Your task to perform on an android device: Show the shopping cart on newegg.com. Add "bose quietcomfort 35" to the cart on newegg.com Image 0: 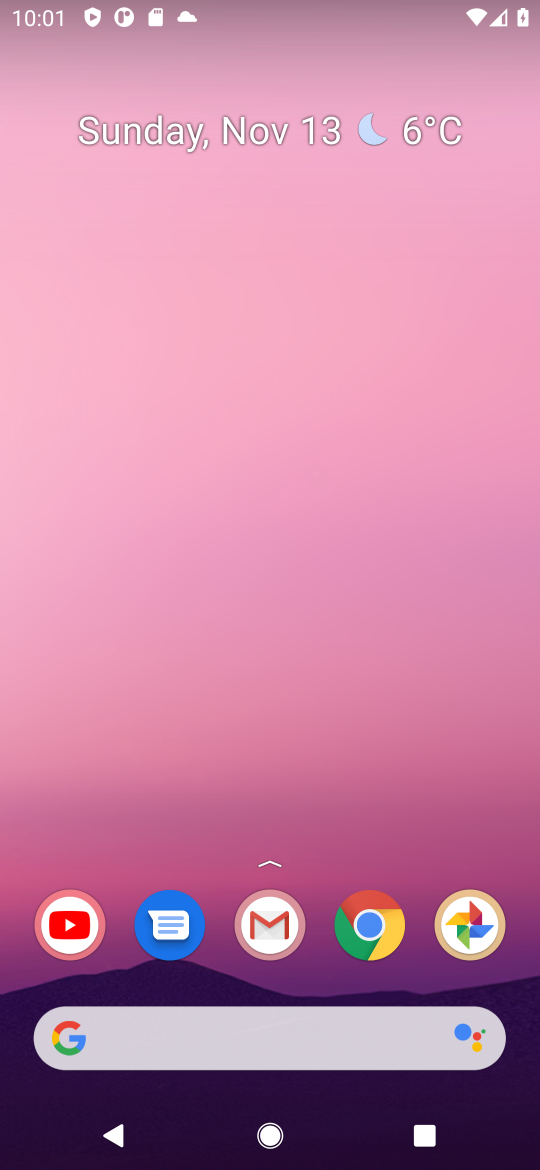
Step 0: click (383, 929)
Your task to perform on an android device: Show the shopping cart on newegg.com. Add "bose quietcomfort 35" to the cart on newegg.com Image 1: 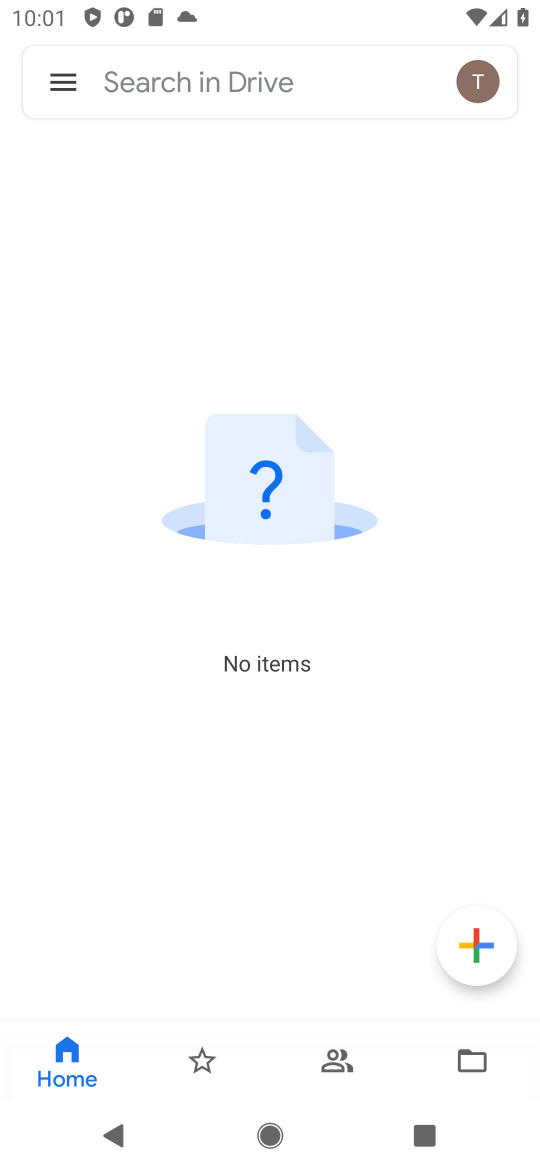
Step 1: press home button
Your task to perform on an android device: Show the shopping cart on newegg.com. Add "bose quietcomfort 35" to the cart on newegg.com Image 2: 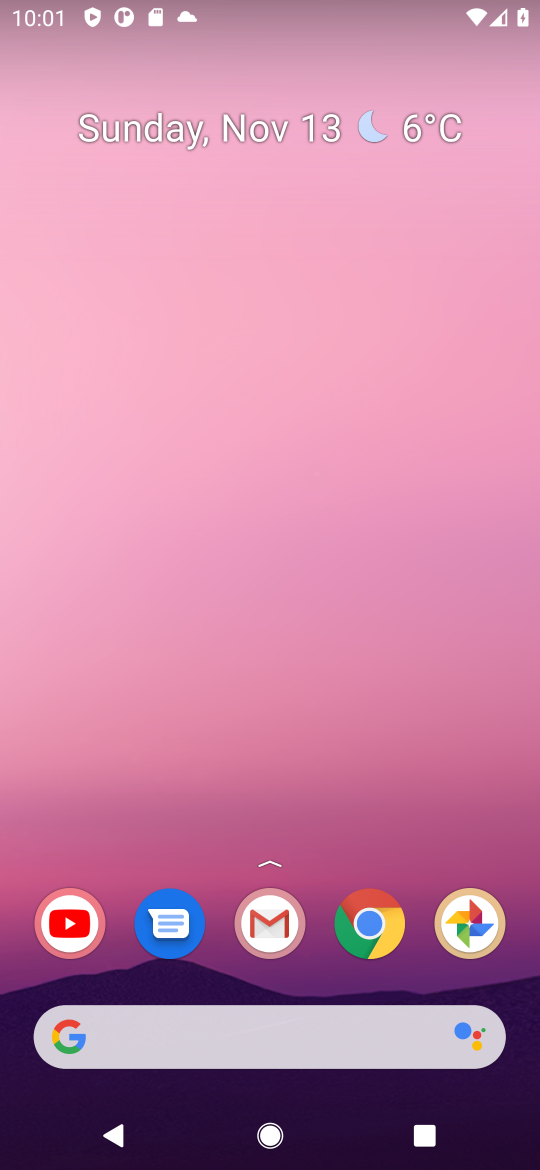
Step 2: click (361, 916)
Your task to perform on an android device: Show the shopping cart on newegg.com. Add "bose quietcomfort 35" to the cart on newegg.com Image 3: 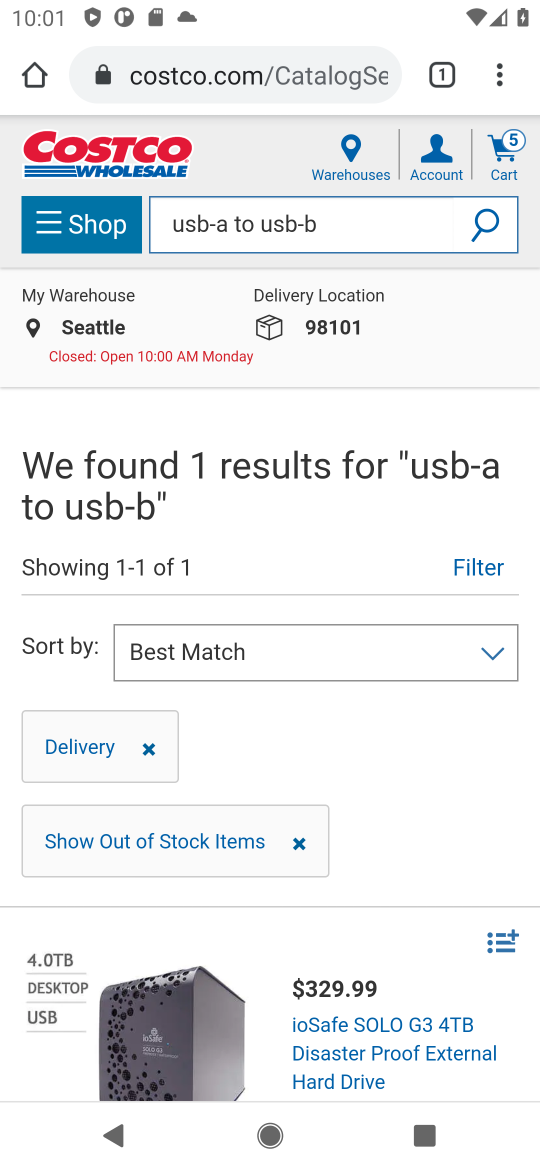
Step 3: click (299, 80)
Your task to perform on an android device: Show the shopping cart on newegg.com. Add "bose quietcomfort 35" to the cart on newegg.com Image 4: 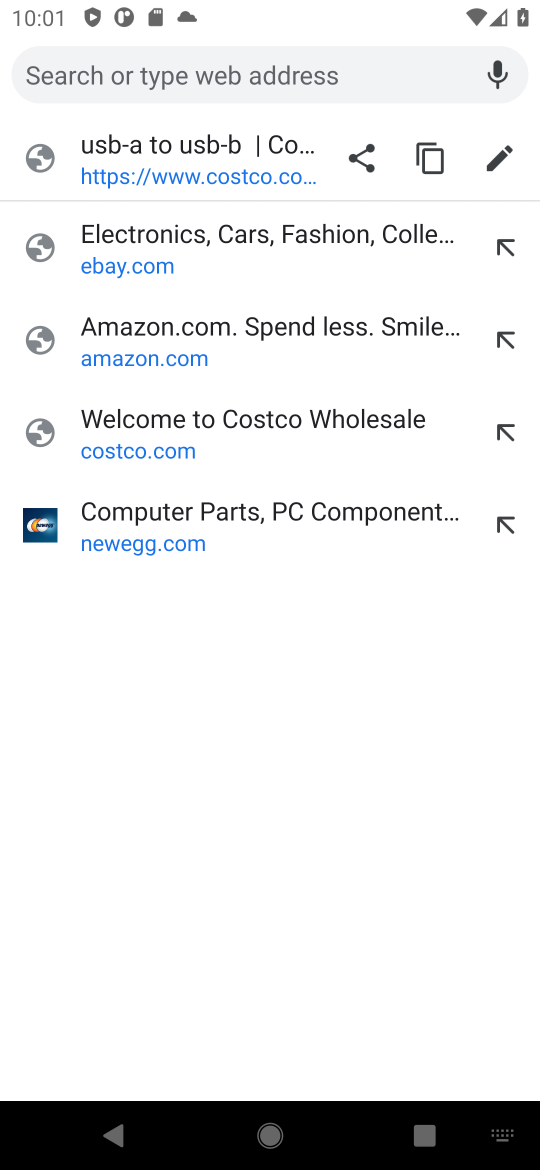
Step 4: click (238, 514)
Your task to perform on an android device: Show the shopping cart on newegg.com. Add "bose quietcomfort 35" to the cart on newegg.com Image 5: 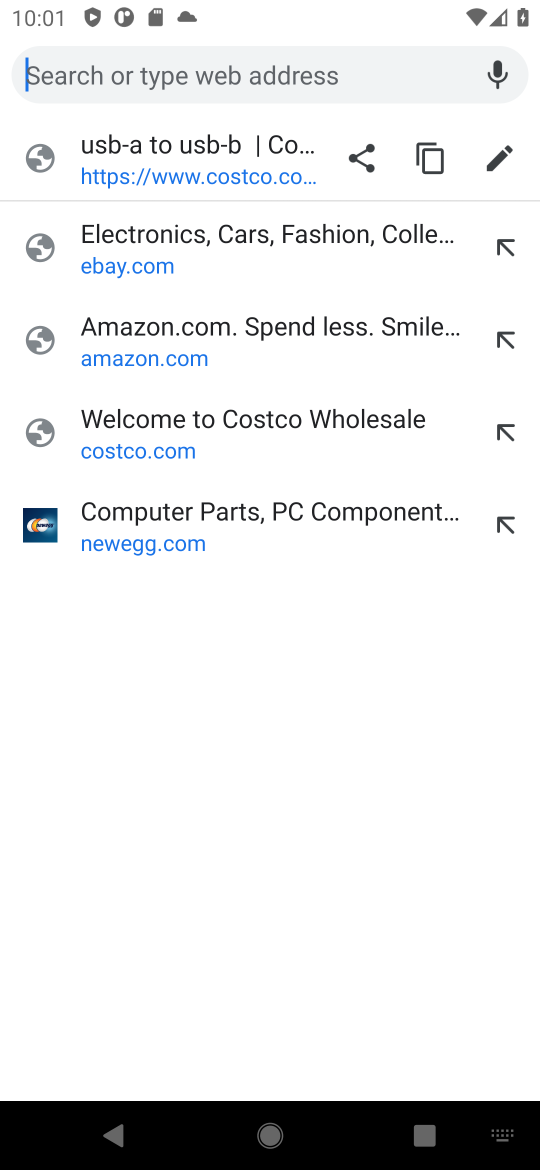
Step 5: click (240, 521)
Your task to perform on an android device: Show the shopping cart on newegg.com. Add "bose quietcomfort 35" to the cart on newegg.com Image 6: 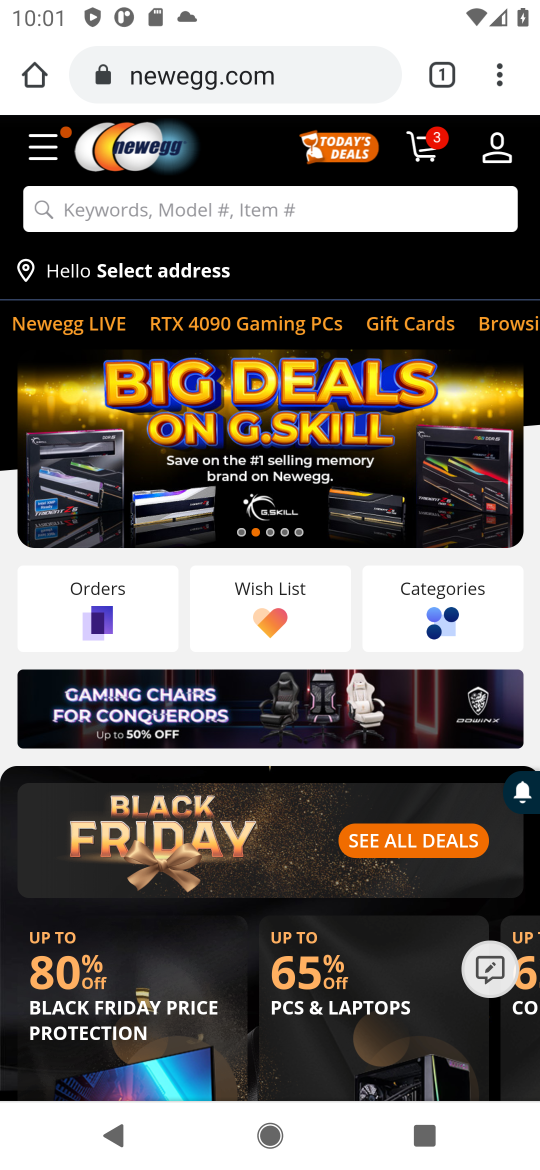
Step 6: click (313, 199)
Your task to perform on an android device: Show the shopping cart on newegg.com. Add "bose quietcomfort 35" to the cart on newegg.com Image 7: 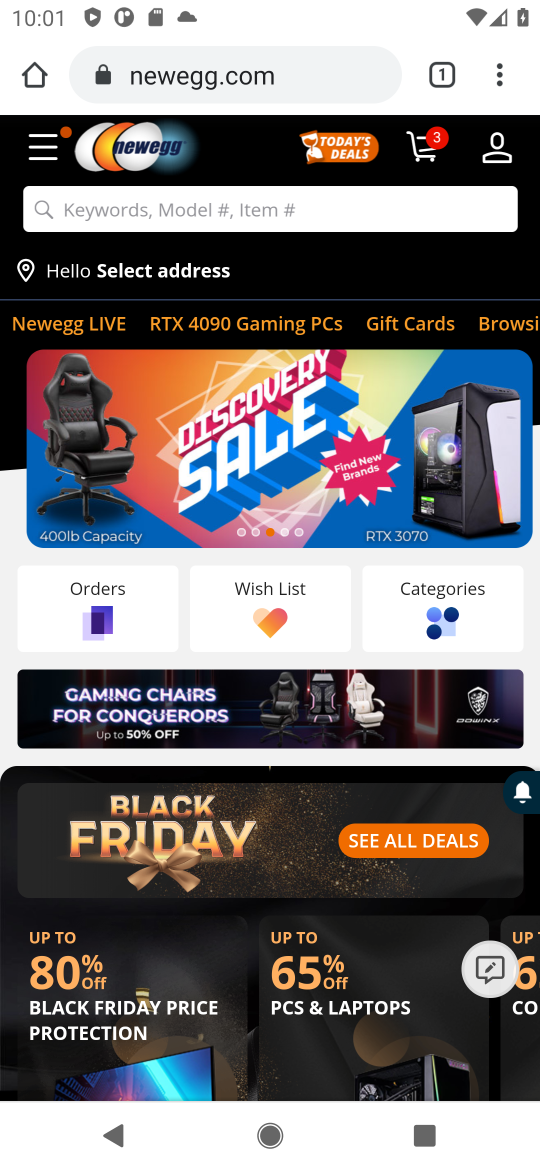
Step 7: press enter
Your task to perform on an android device: Show the shopping cart on newegg.com. Add "bose quietcomfort 35" to the cart on newegg.com Image 8: 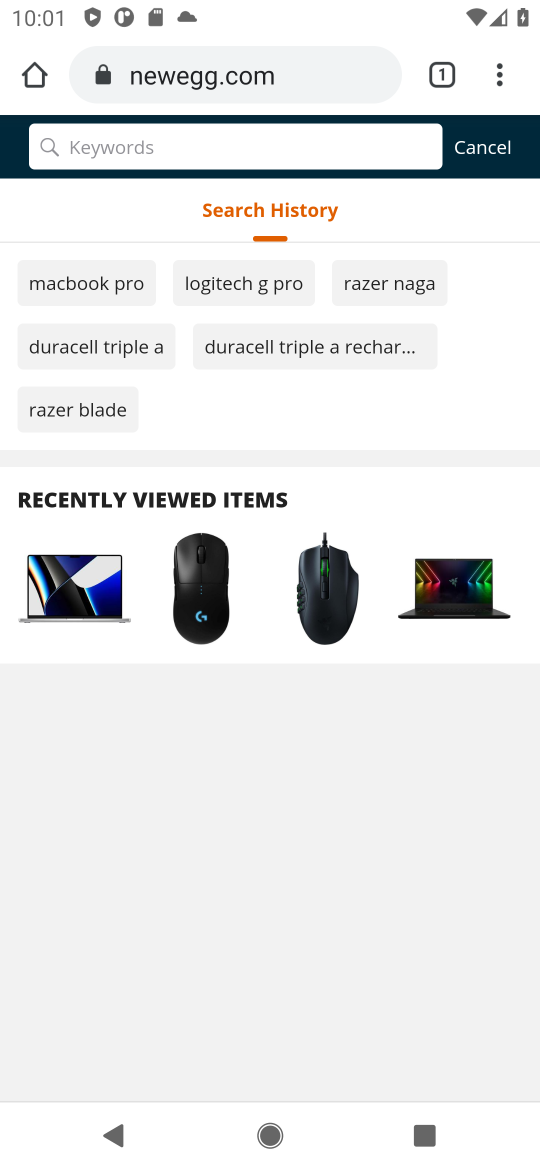
Step 8: type "bose quietcomfort 35"
Your task to perform on an android device: Show the shopping cart on newegg.com. Add "bose quietcomfort 35" to the cart on newegg.com Image 9: 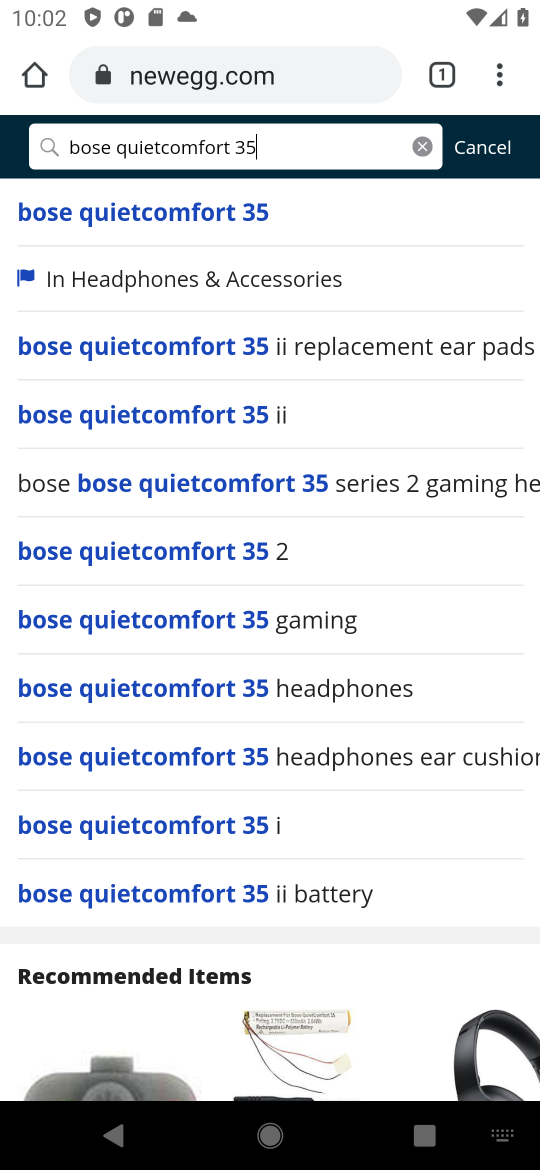
Step 9: click (220, 207)
Your task to perform on an android device: Show the shopping cart on newegg.com. Add "bose quietcomfort 35" to the cart on newegg.com Image 10: 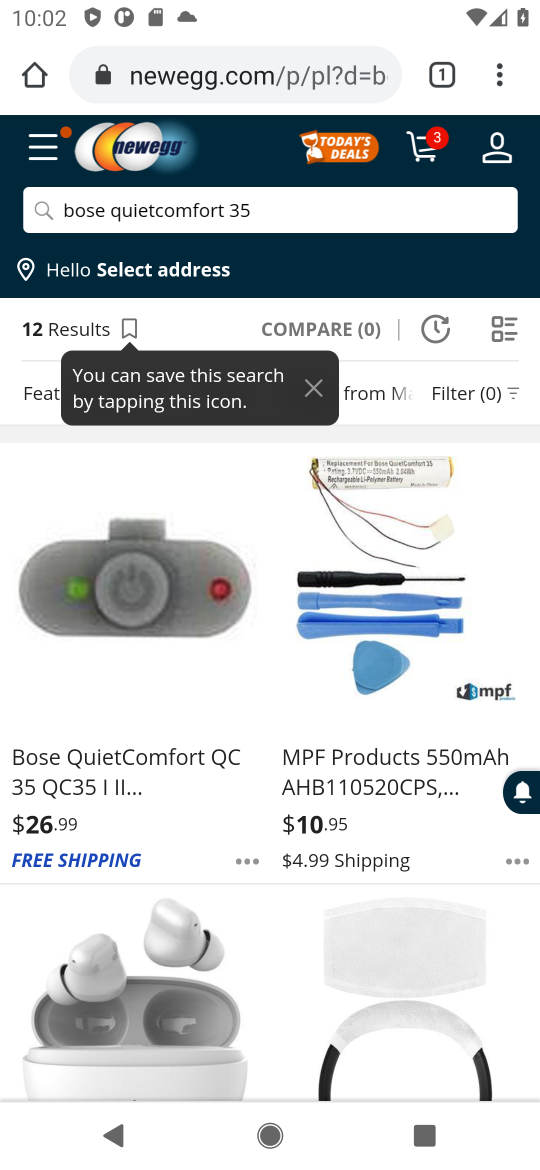
Step 10: drag from (232, 769) to (270, 315)
Your task to perform on an android device: Show the shopping cart on newegg.com. Add "bose quietcomfort 35" to the cart on newegg.com Image 11: 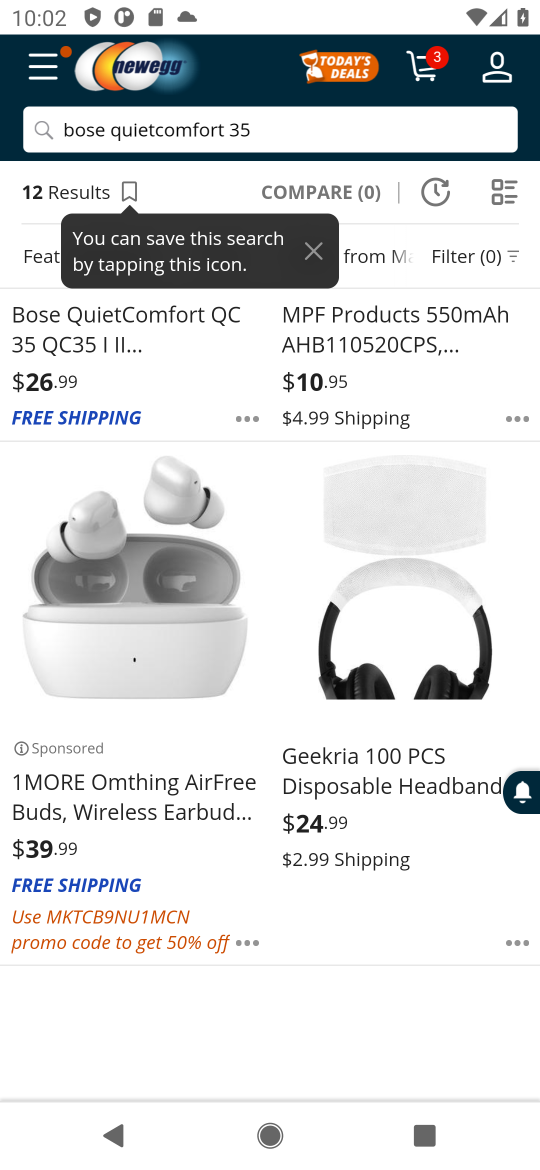
Step 11: drag from (410, 924) to (394, 452)
Your task to perform on an android device: Show the shopping cart on newegg.com. Add "bose quietcomfort 35" to the cart on newegg.com Image 12: 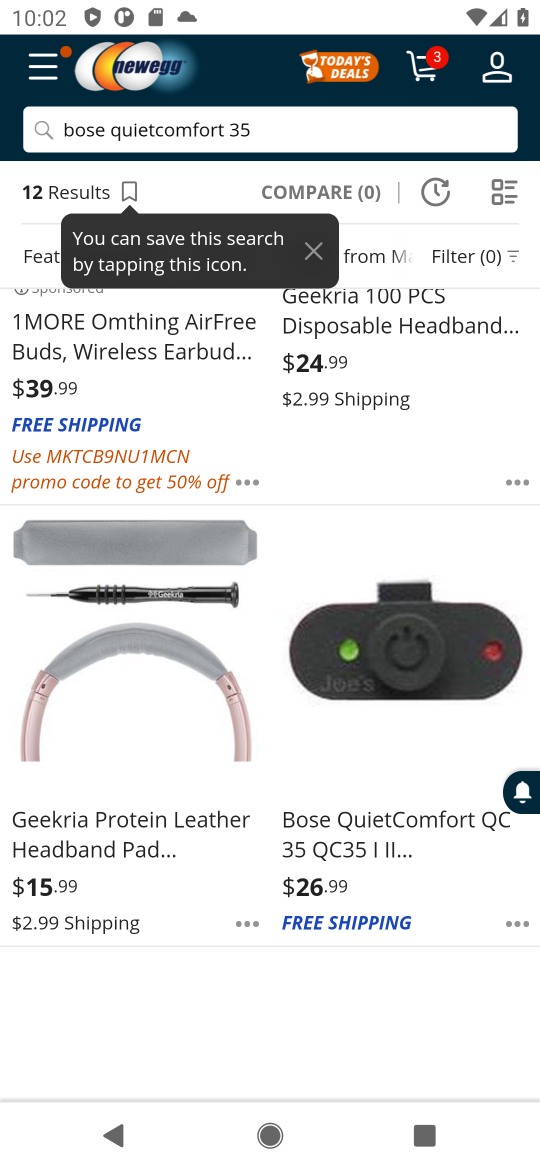
Step 12: drag from (393, 936) to (429, 447)
Your task to perform on an android device: Show the shopping cart on newegg.com. Add "bose quietcomfort 35" to the cart on newegg.com Image 13: 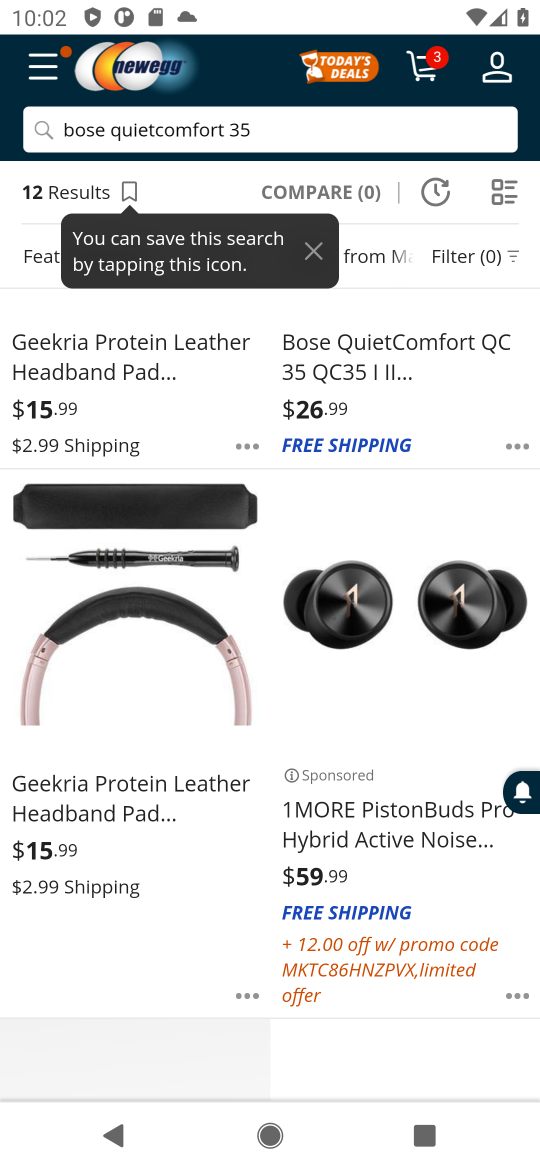
Step 13: drag from (432, 891) to (439, 434)
Your task to perform on an android device: Show the shopping cart on newegg.com. Add "bose quietcomfort 35" to the cart on newegg.com Image 14: 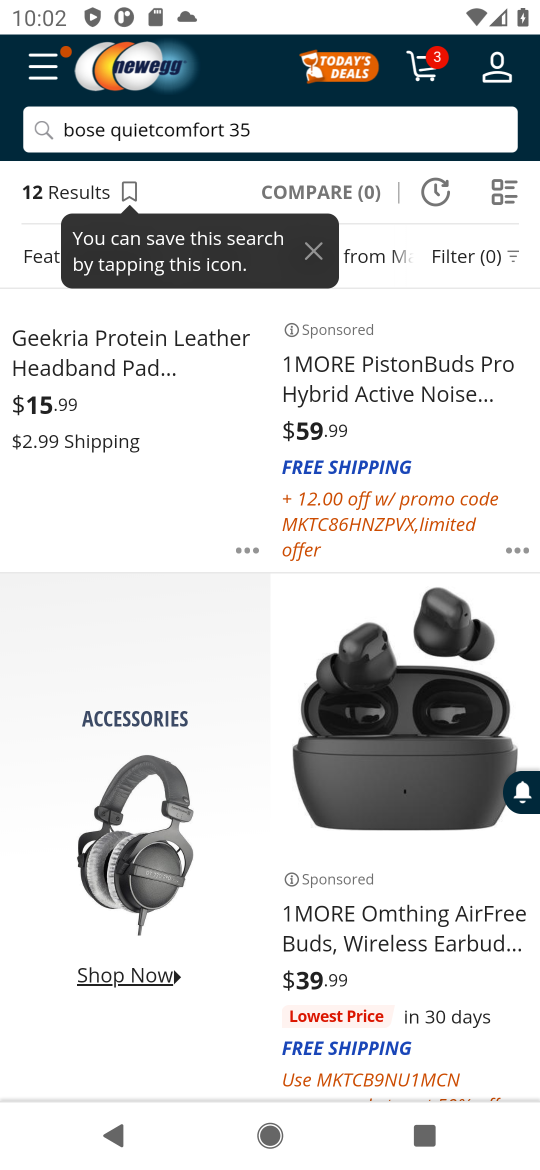
Step 14: drag from (307, 302) to (455, 1037)
Your task to perform on an android device: Show the shopping cart on newegg.com. Add "bose quietcomfort 35" to the cart on newegg.com Image 15: 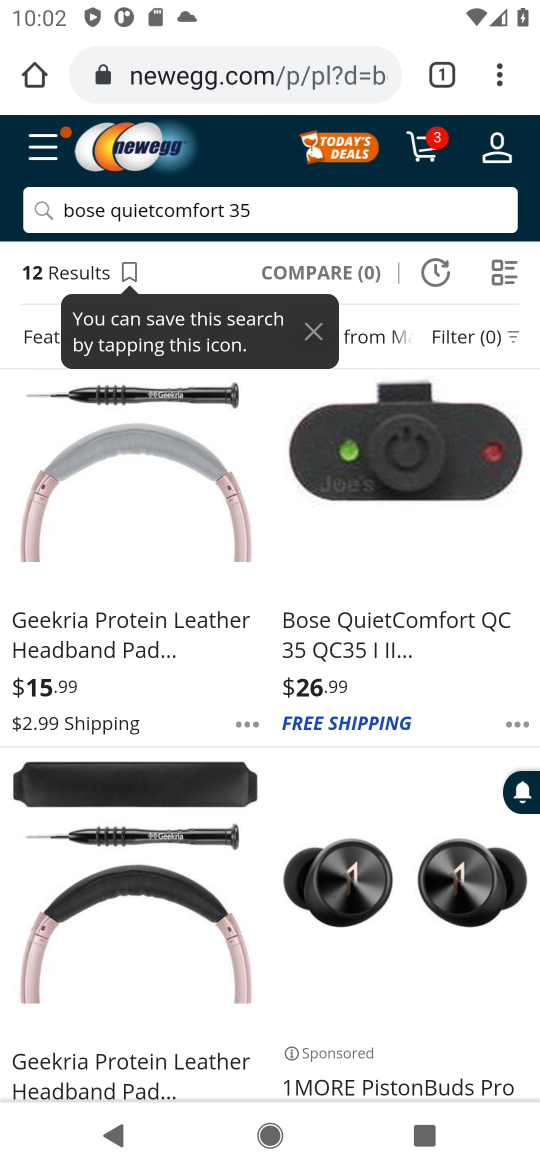
Step 15: drag from (173, 552) to (425, 1169)
Your task to perform on an android device: Show the shopping cart on newegg.com. Add "bose quietcomfort 35" to the cart on newegg.com Image 16: 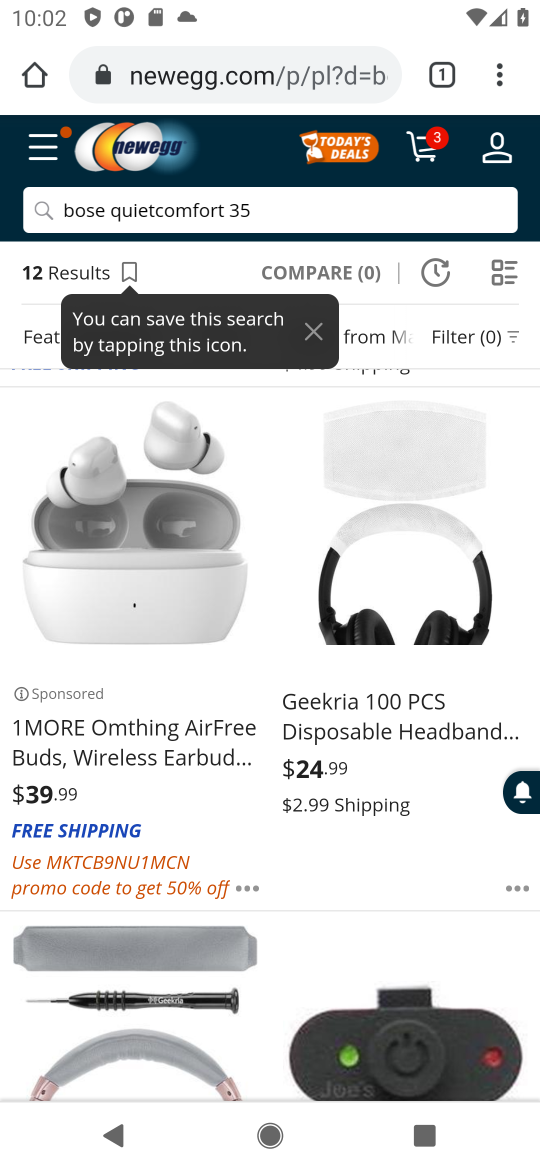
Step 16: drag from (342, 809) to (417, 1059)
Your task to perform on an android device: Show the shopping cart on newegg.com. Add "bose quietcomfort 35" to the cart on newegg.com Image 17: 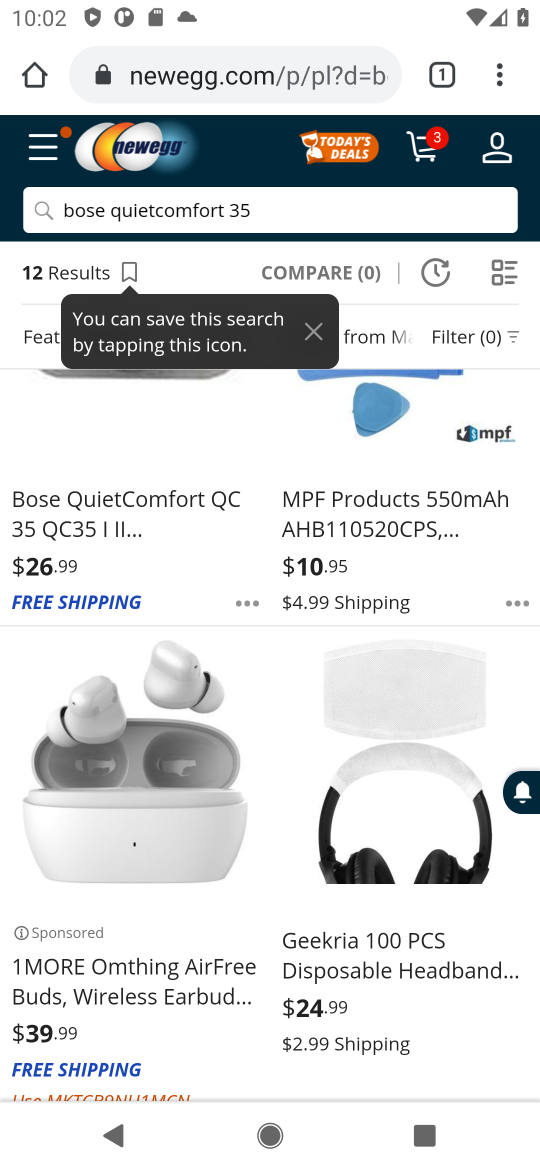
Step 17: drag from (175, 487) to (323, 1050)
Your task to perform on an android device: Show the shopping cart on newegg.com. Add "bose quietcomfort 35" to the cart on newegg.com Image 18: 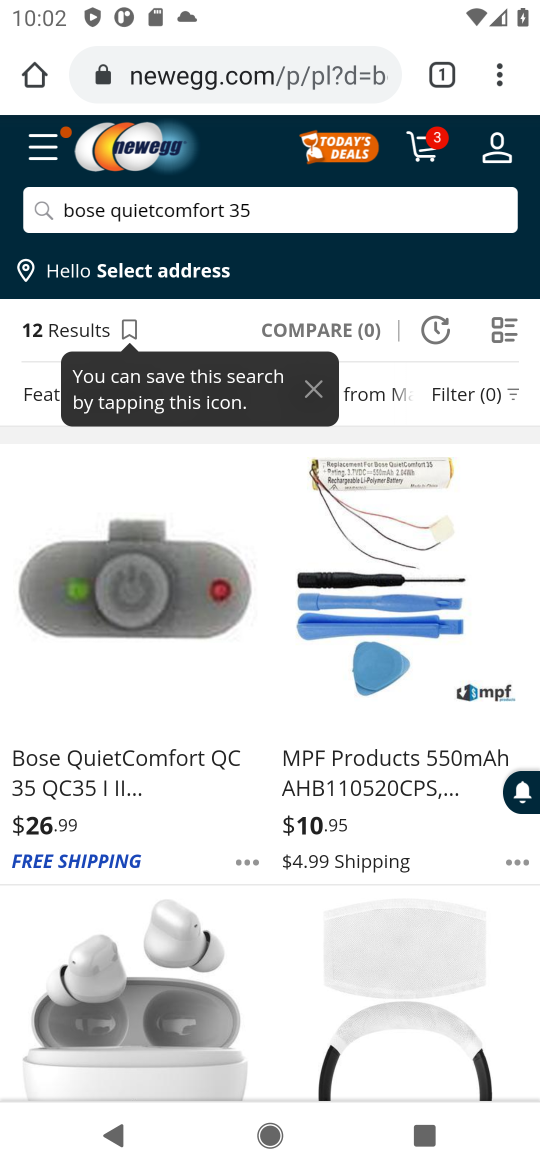
Step 18: click (131, 602)
Your task to perform on an android device: Show the shopping cart on newegg.com. Add "bose quietcomfort 35" to the cart on newegg.com Image 19: 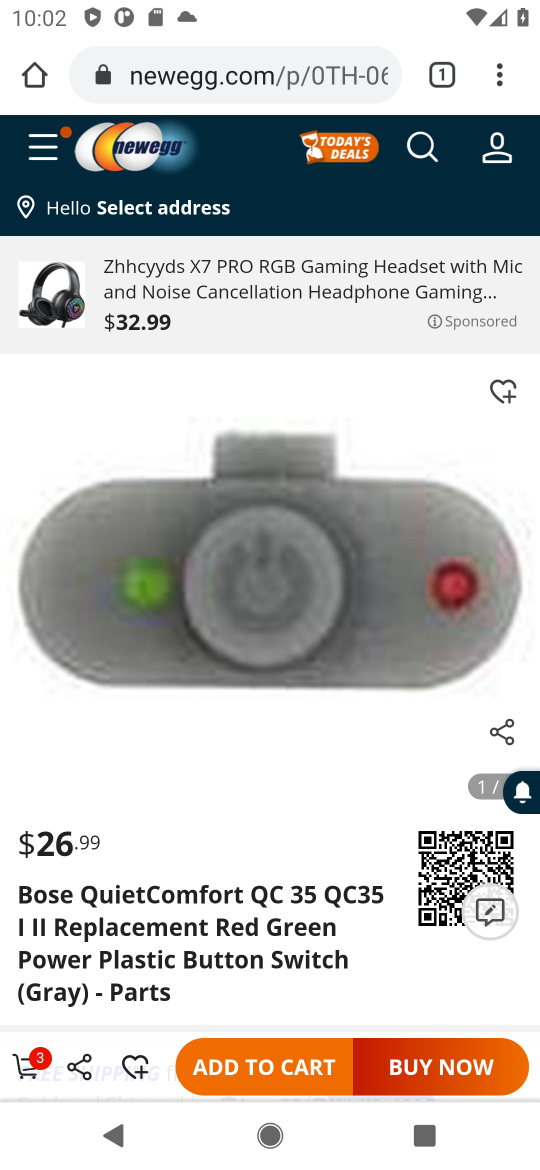
Step 19: click (268, 1061)
Your task to perform on an android device: Show the shopping cart on newegg.com. Add "bose quietcomfort 35" to the cart on newegg.com Image 20: 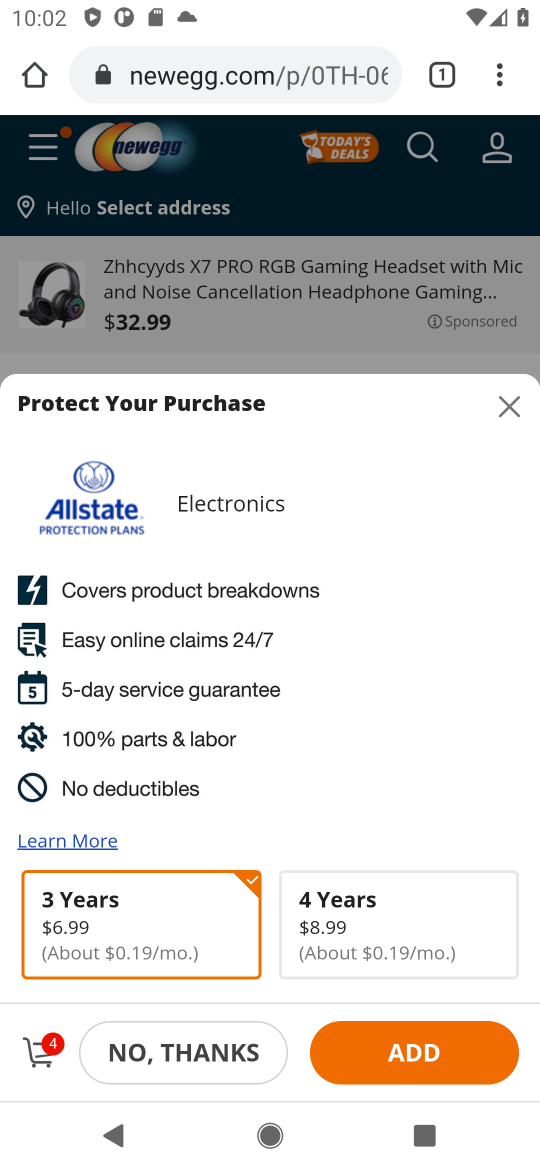
Step 20: task complete